Your task to perform on an android device: Open Chrome and go to settings Image 0: 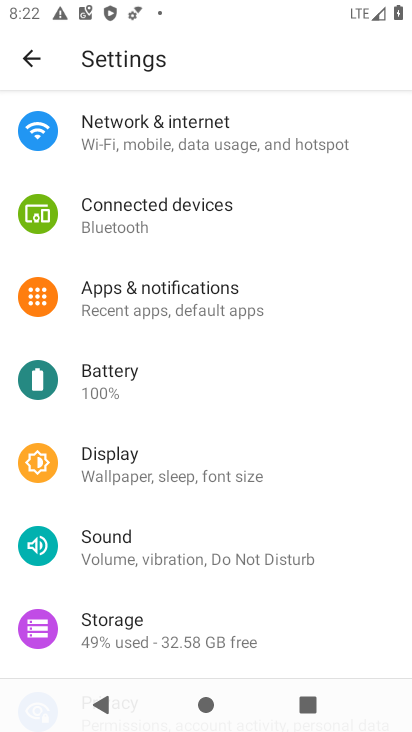
Step 0: press home button
Your task to perform on an android device: Open Chrome and go to settings Image 1: 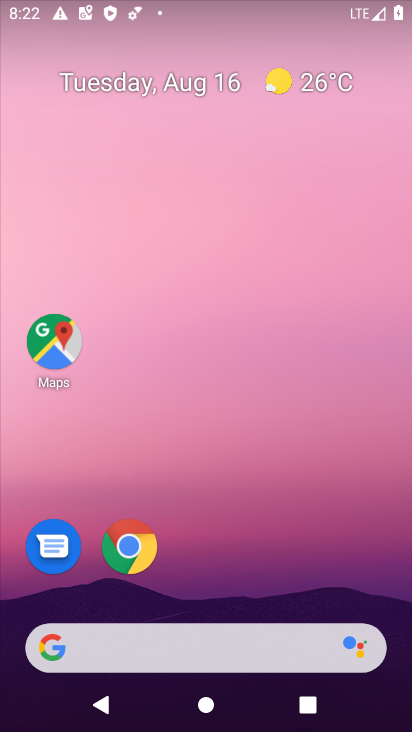
Step 1: click (126, 543)
Your task to perform on an android device: Open Chrome and go to settings Image 2: 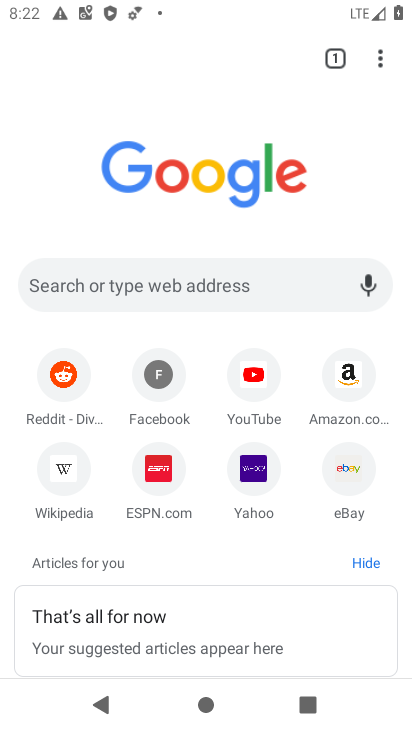
Step 2: click (382, 64)
Your task to perform on an android device: Open Chrome and go to settings Image 3: 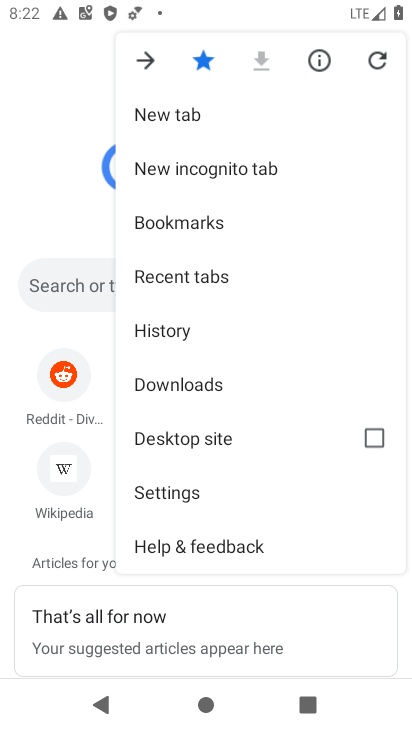
Step 3: click (189, 489)
Your task to perform on an android device: Open Chrome and go to settings Image 4: 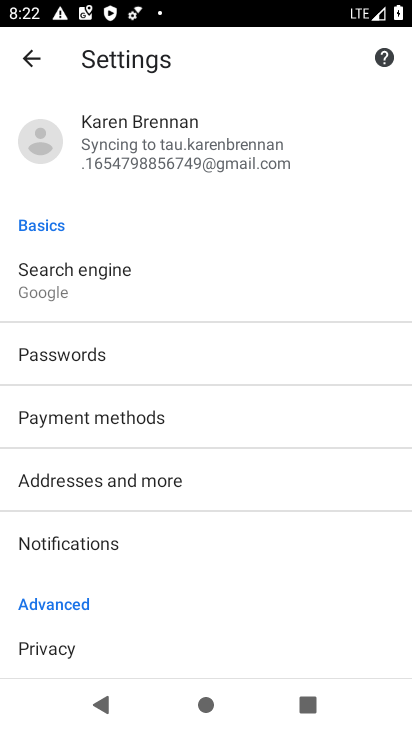
Step 4: task complete